Your task to perform on an android device: Go to settings Image 0: 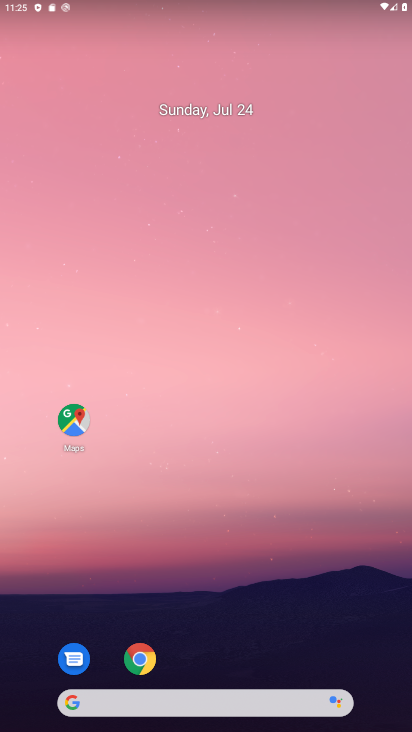
Step 0: click (132, 186)
Your task to perform on an android device: Go to settings Image 1: 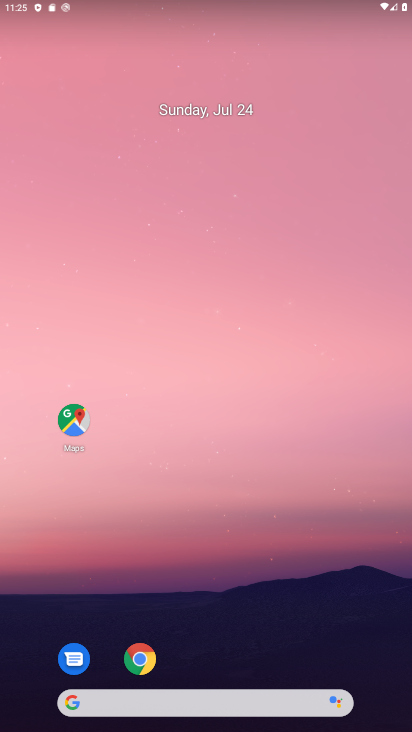
Step 1: drag from (105, 411) to (148, 220)
Your task to perform on an android device: Go to settings Image 2: 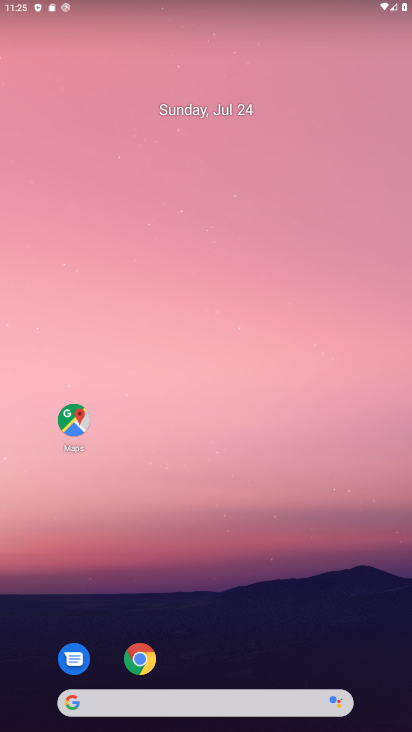
Step 2: drag from (24, 687) to (159, 331)
Your task to perform on an android device: Go to settings Image 3: 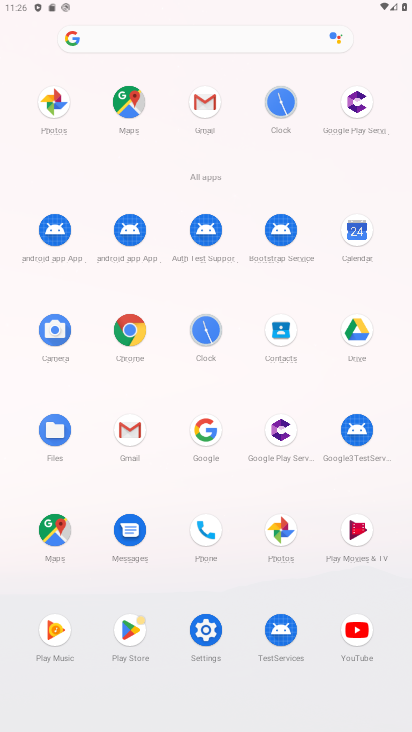
Step 3: click (208, 631)
Your task to perform on an android device: Go to settings Image 4: 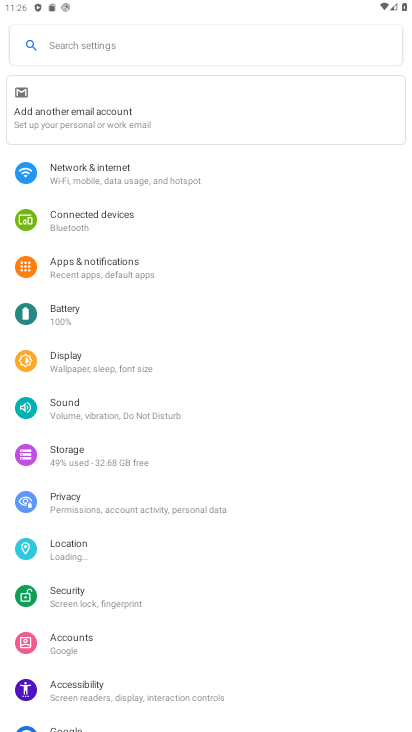
Step 4: task complete